Your task to perform on an android device: Open the calendar and show me this week's events? Image 0: 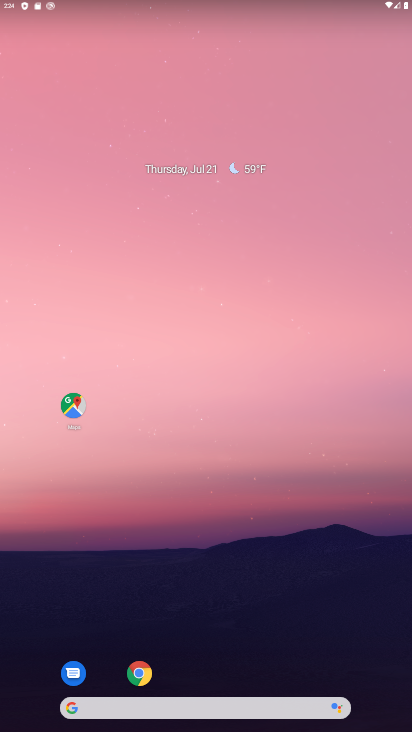
Step 0: drag from (382, 670) to (344, 133)
Your task to perform on an android device: Open the calendar and show me this week's events? Image 1: 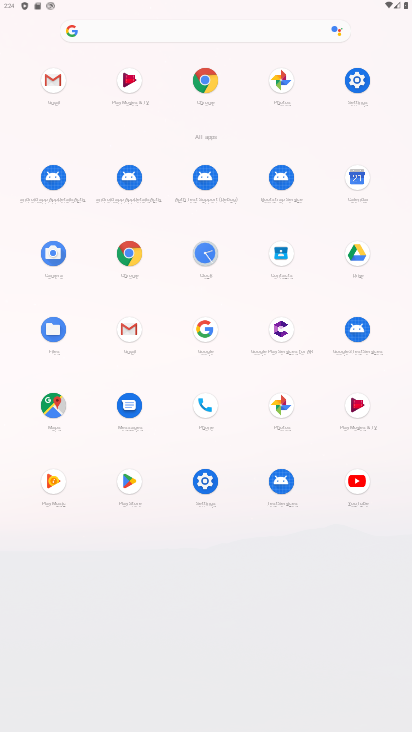
Step 1: click (353, 176)
Your task to perform on an android device: Open the calendar and show me this week's events? Image 2: 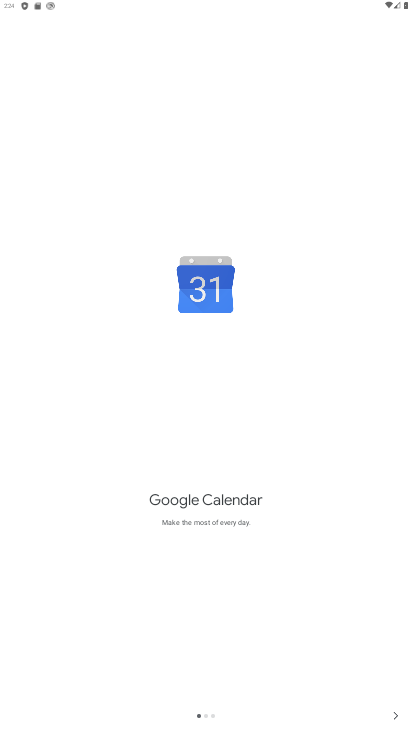
Step 2: click (393, 714)
Your task to perform on an android device: Open the calendar and show me this week's events? Image 3: 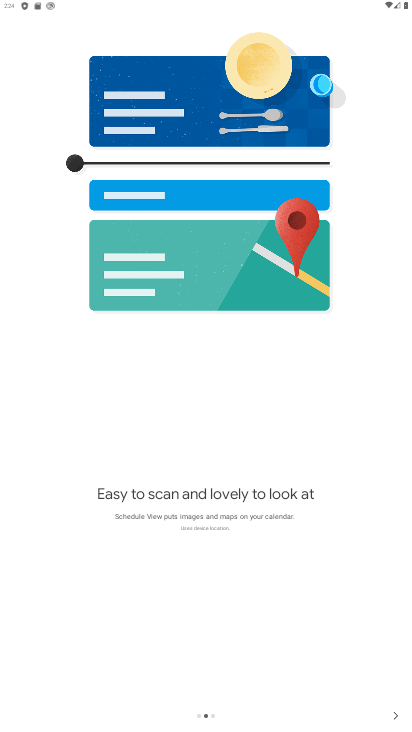
Step 3: click (393, 714)
Your task to perform on an android device: Open the calendar and show me this week's events? Image 4: 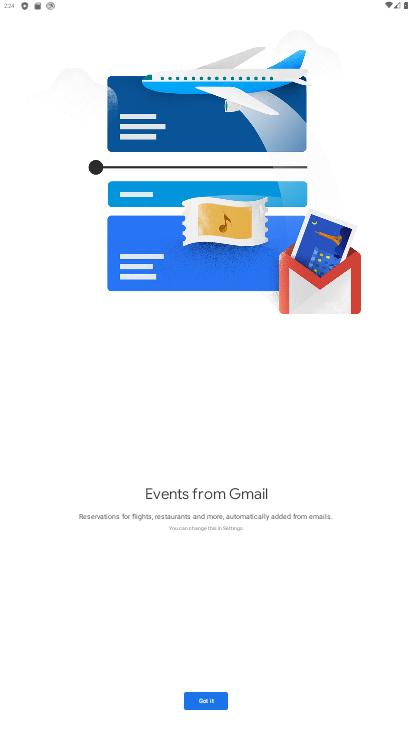
Step 4: click (197, 700)
Your task to perform on an android device: Open the calendar and show me this week's events? Image 5: 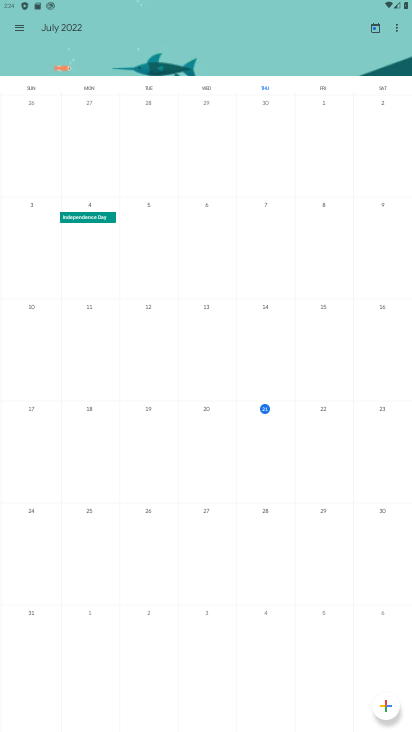
Step 5: click (17, 28)
Your task to perform on an android device: Open the calendar and show me this week's events? Image 6: 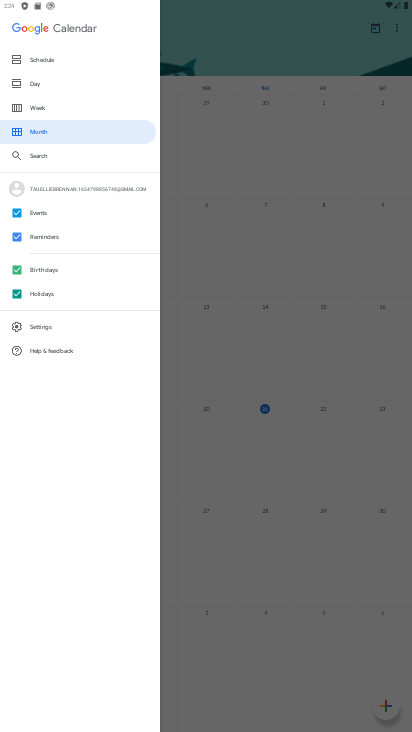
Step 6: click (37, 108)
Your task to perform on an android device: Open the calendar and show me this week's events? Image 7: 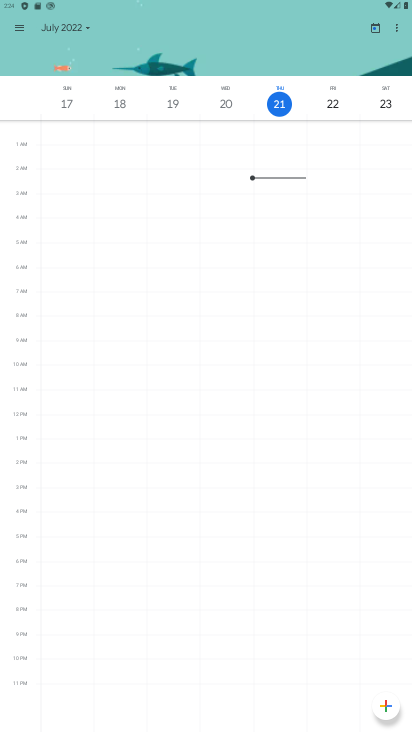
Step 7: click (153, 140)
Your task to perform on an android device: Open the calendar and show me this week's events? Image 8: 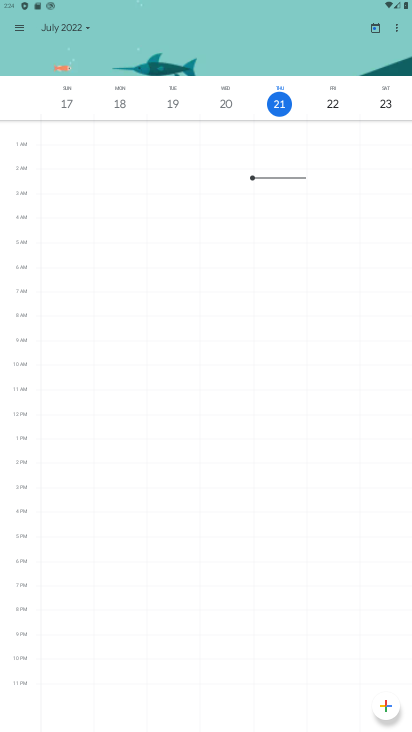
Step 8: task complete